Your task to perform on an android device: Is it going to rain today? Image 0: 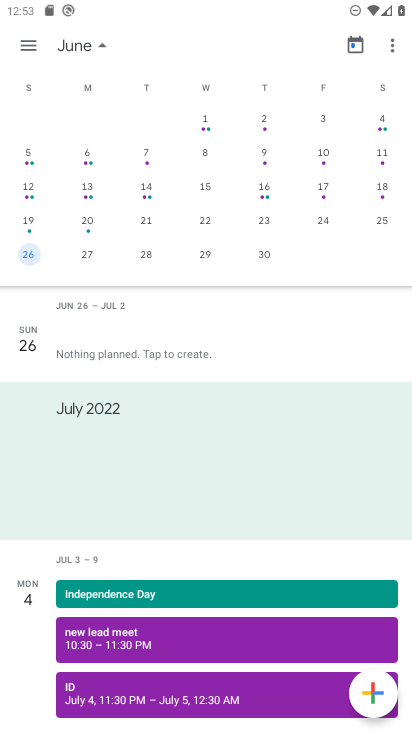
Step 0: press home button
Your task to perform on an android device: Is it going to rain today? Image 1: 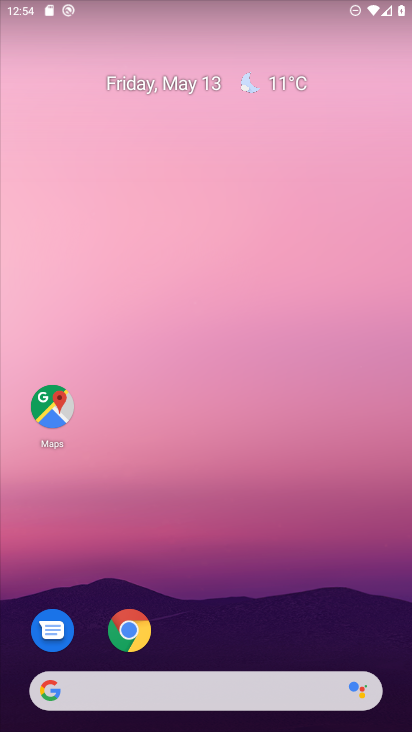
Step 1: click (283, 81)
Your task to perform on an android device: Is it going to rain today? Image 2: 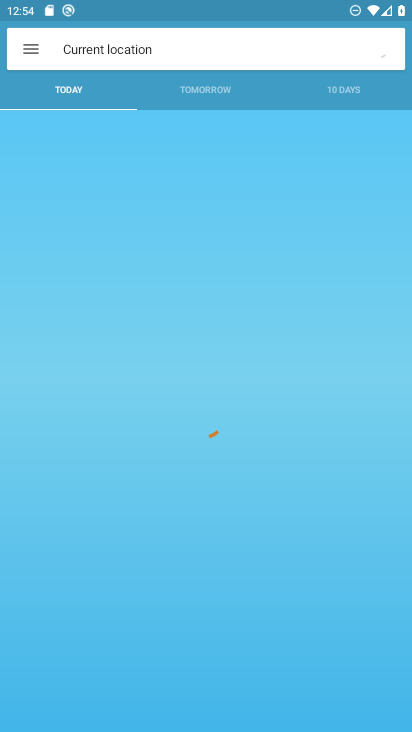
Step 2: click (291, 86)
Your task to perform on an android device: Is it going to rain today? Image 3: 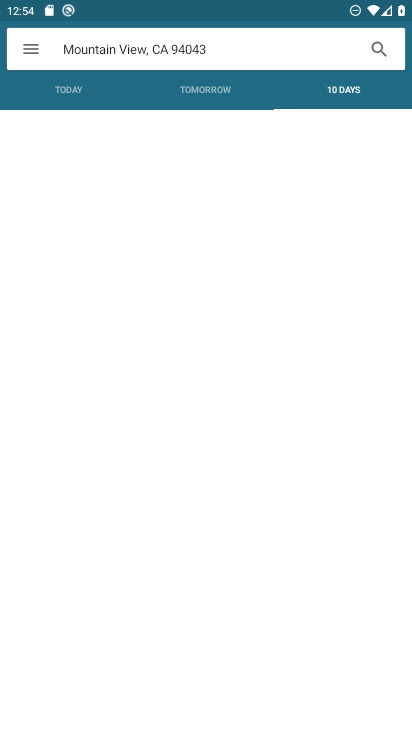
Step 3: click (98, 95)
Your task to perform on an android device: Is it going to rain today? Image 4: 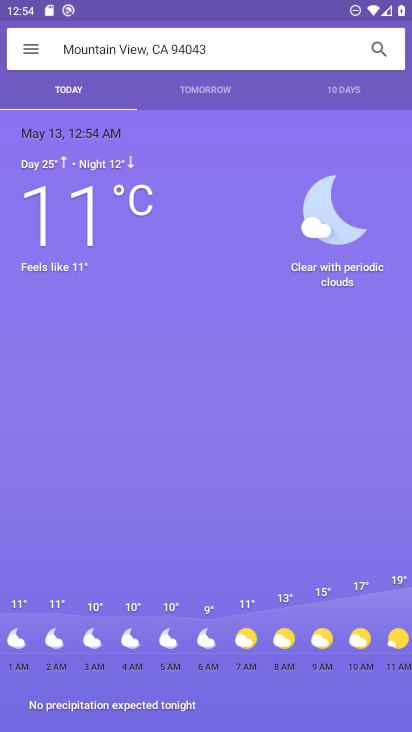
Step 4: task complete